Your task to perform on an android device: change your default location settings in chrome Image 0: 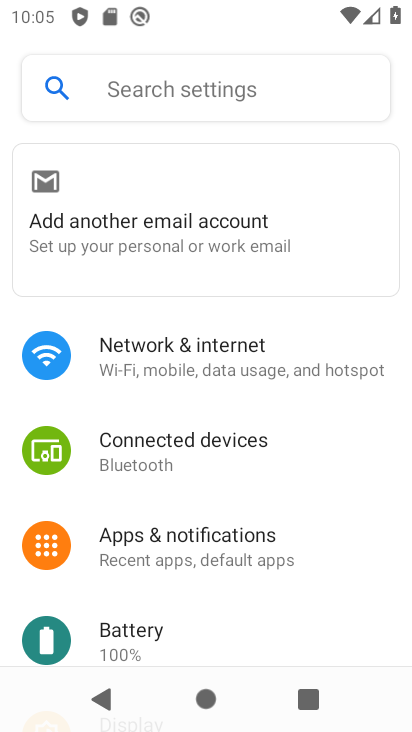
Step 0: press home button
Your task to perform on an android device: change your default location settings in chrome Image 1: 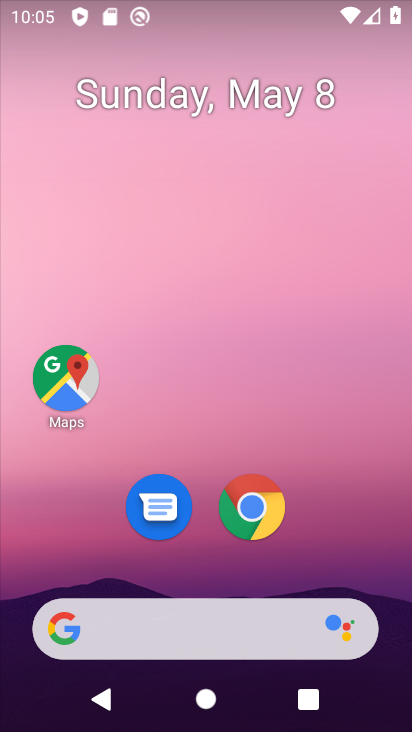
Step 1: click (264, 513)
Your task to perform on an android device: change your default location settings in chrome Image 2: 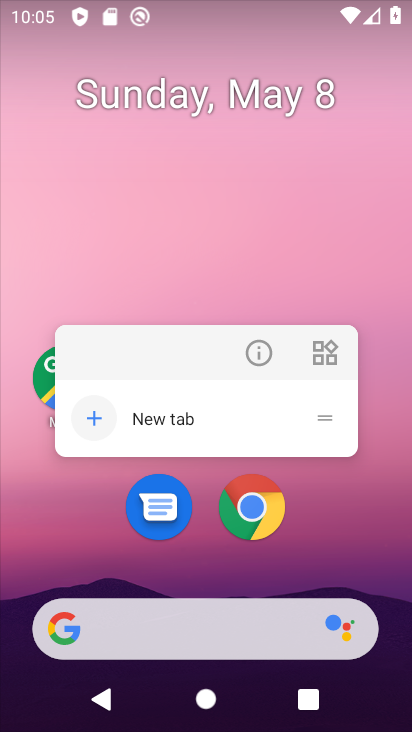
Step 2: click (262, 509)
Your task to perform on an android device: change your default location settings in chrome Image 3: 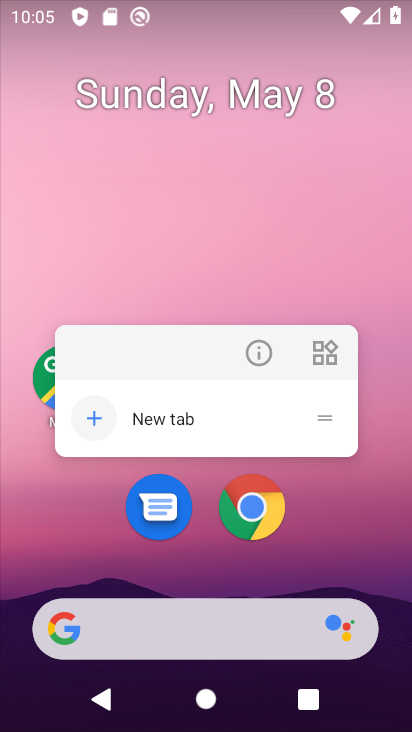
Step 3: click (262, 509)
Your task to perform on an android device: change your default location settings in chrome Image 4: 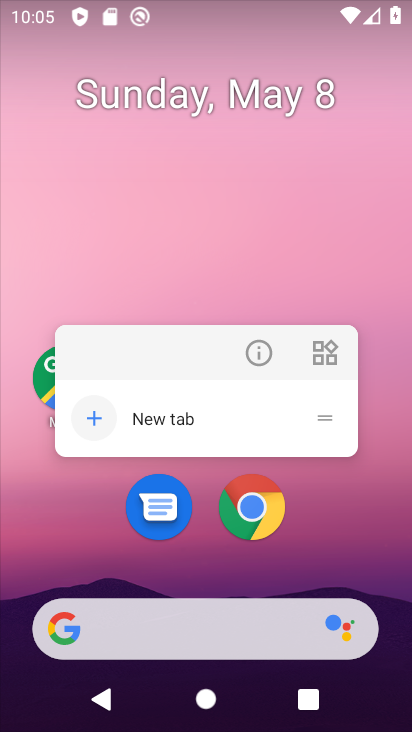
Step 4: click (262, 509)
Your task to perform on an android device: change your default location settings in chrome Image 5: 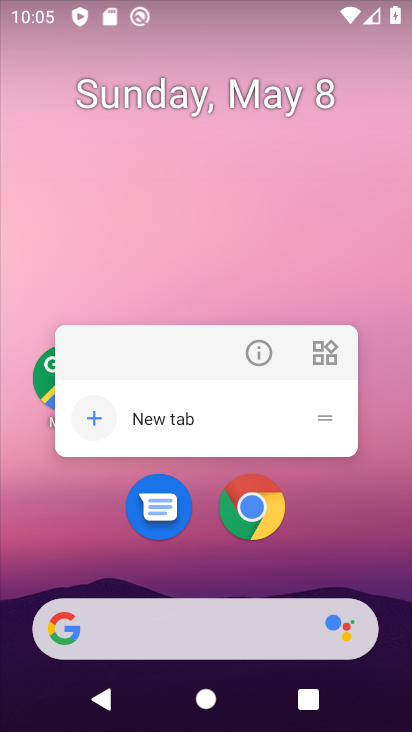
Step 5: click (260, 509)
Your task to perform on an android device: change your default location settings in chrome Image 6: 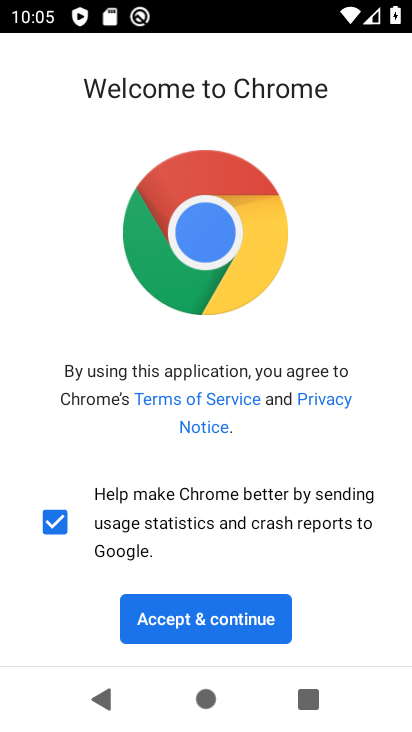
Step 6: click (168, 612)
Your task to perform on an android device: change your default location settings in chrome Image 7: 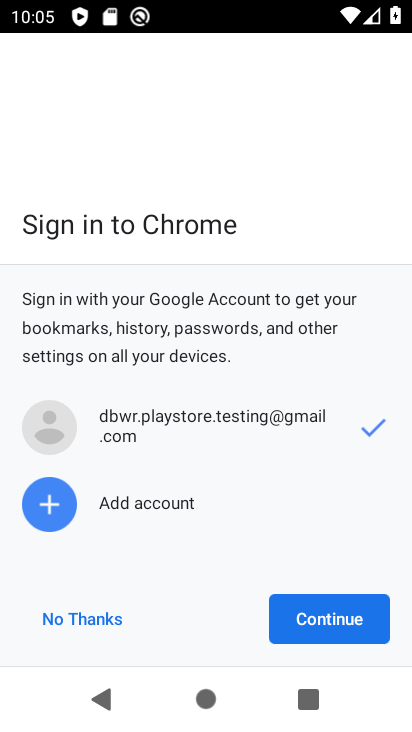
Step 7: click (340, 616)
Your task to perform on an android device: change your default location settings in chrome Image 8: 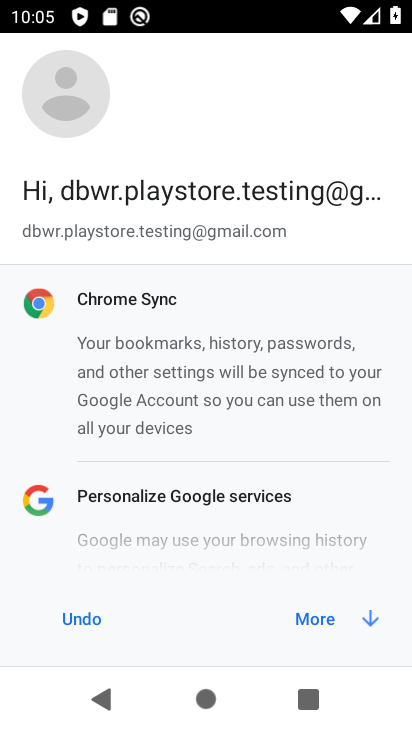
Step 8: click (340, 616)
Your task to perform on an android device: change your default location settings in chrome Image 9: 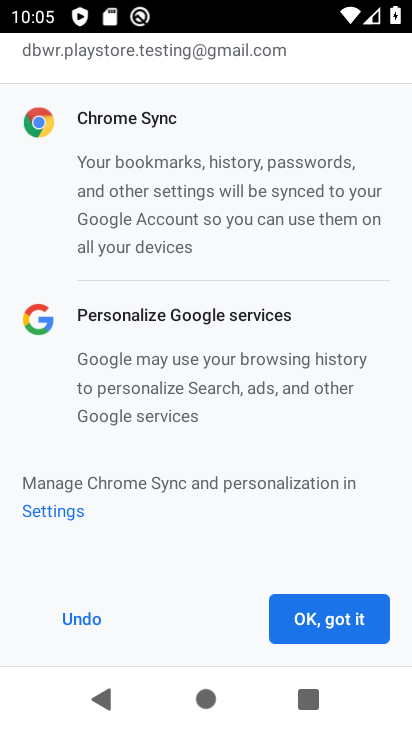
Step 9: click (347, 604)
Your task to perform on an android device: change your default location settings in chrome Image 10: 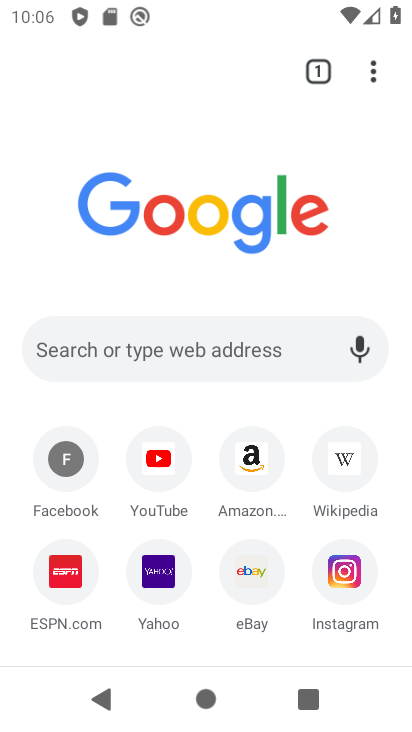
Step 10: click (372, 72)
Your task to perform on an android device: change your default location settings in chrome Image 11: 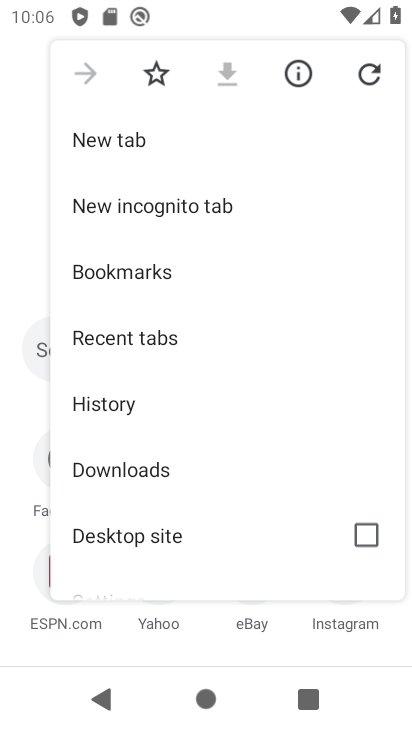
Step 11: drag from (118, 570) to (128, 220)
Your task to perform on an android device: change your default location settings in chrome Image 12: 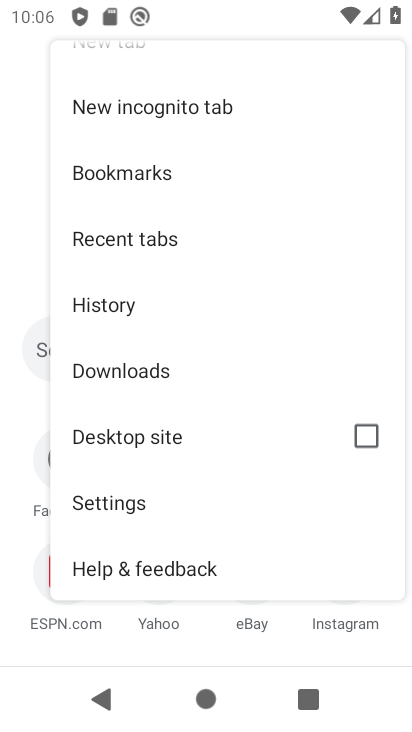
Step 12: click (164, 499)
Your task to perform on an android device: change your default location settings in chrome Image 13: 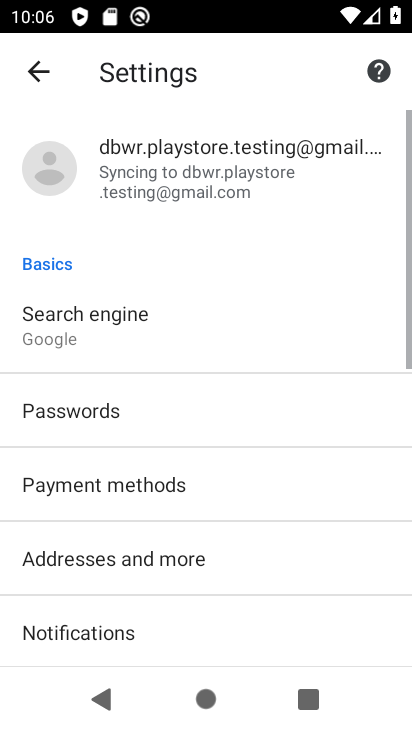
Step 13: drag from (138, 621) to (131, 336)
Your task to perform on an android device: change your default location settings in chrome Image 14: 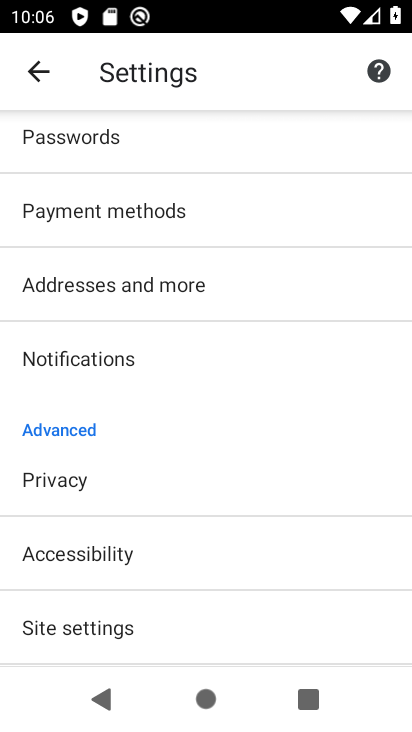
Step 14: click (145, 638)
Your task to perform on an android device: change your default location settings in chrome Image 15: 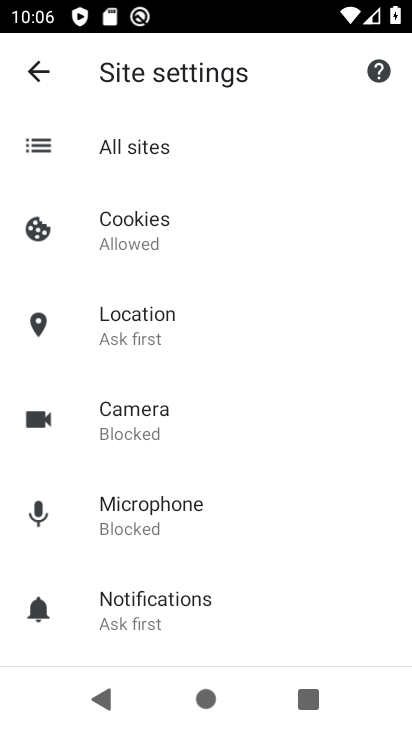
Step 15: click (130, 344)
Your task to perform on an android device: change your default location settings in chrome Image 16: 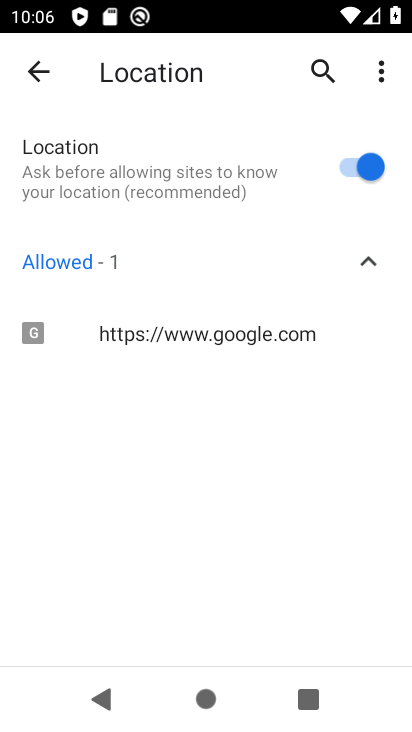
Step 16: click (325, 159)
Your task to perform on an android device: change your default location settings in chrome Image 17: 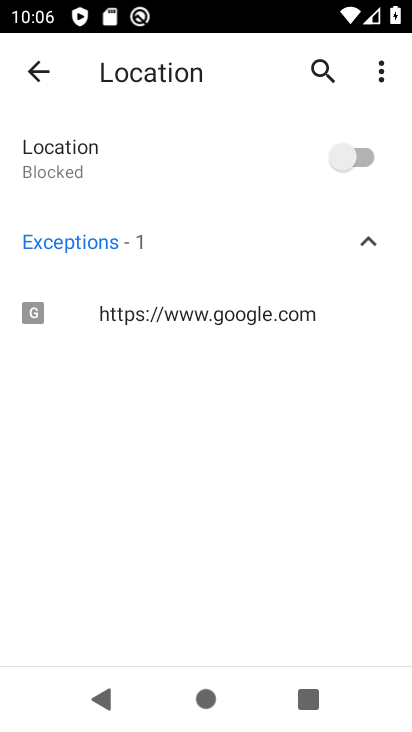
Step 17: task complete